Your task to perform on an android device: remove spam from my inbox in the gmail app Image 0: 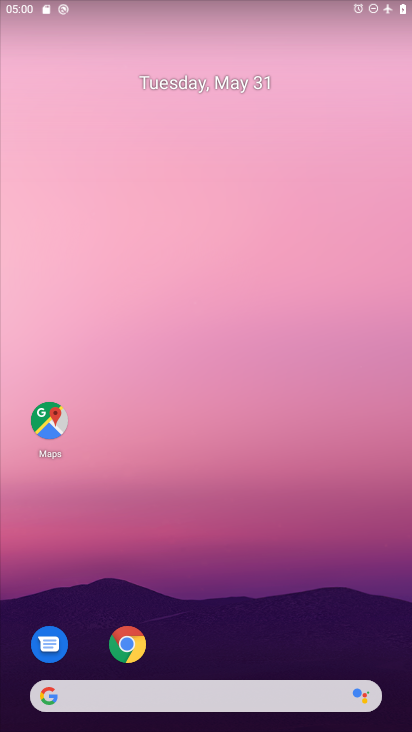
Step 0: drag from (295, 595) to (285, 66)
Your task to perform on an android device: remove spam from my inbox in the gmail app Image 1: 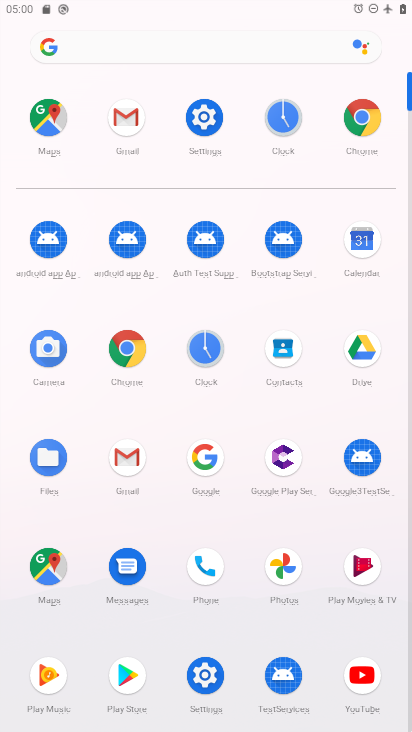
Step 1: click (122, 117)
Your task to perform on an android device: remove spam from my inbox in the gmail app Image 2: 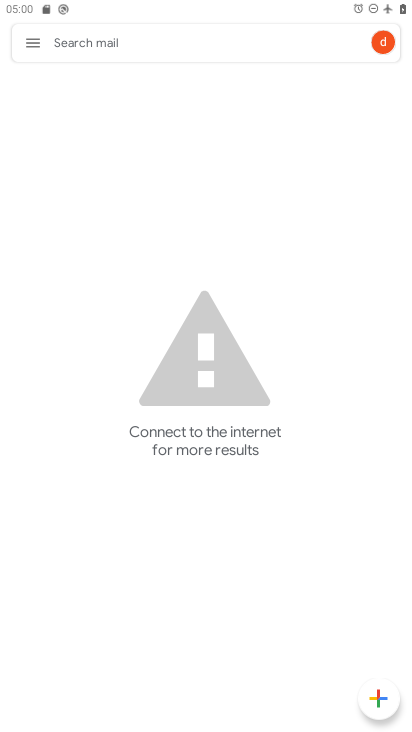
Step 2: click (29, 42)
Your task to perform on an android device: remove spam from my inbox in the gmail app Image 3: 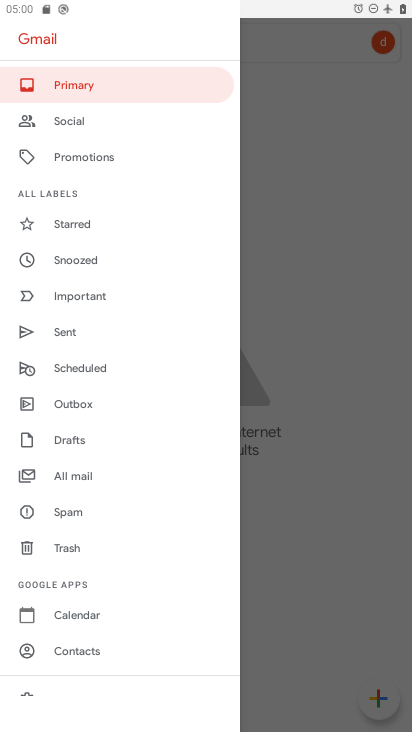
Step 3: click (72, 511)
Your task to perform on an android device: remove spam from my inbox in the gmail app Image 4: 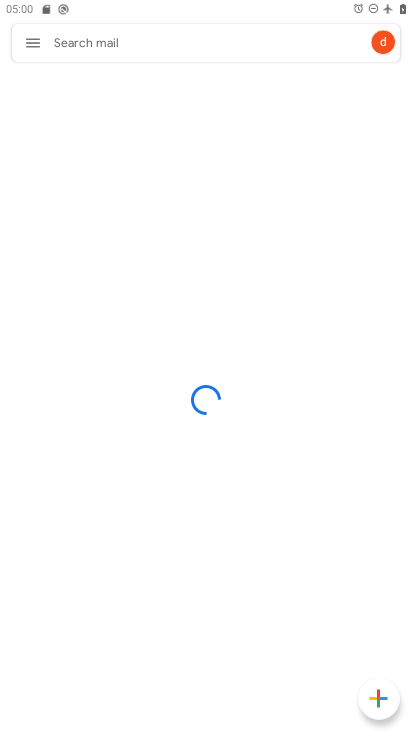
Step 4: click (36, 50)
Your task to perform on an android device: remove spam from my inbox in the gmail app Image 5: 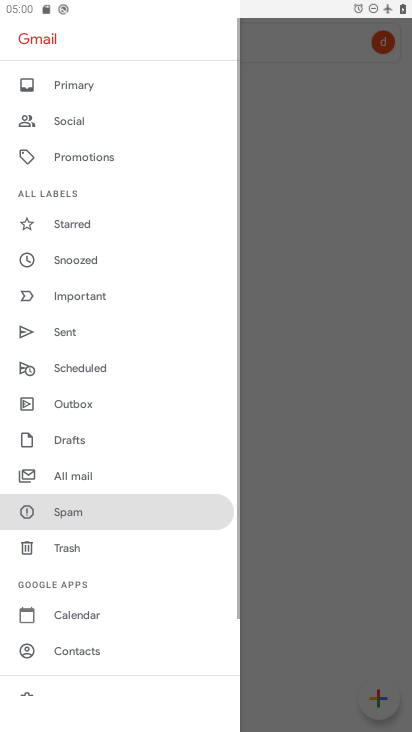
Step 5: drag from (76, 94) to (79, 420)
Your task to perform on an android device: remove spam from my inbox in the gmail app Image 6: 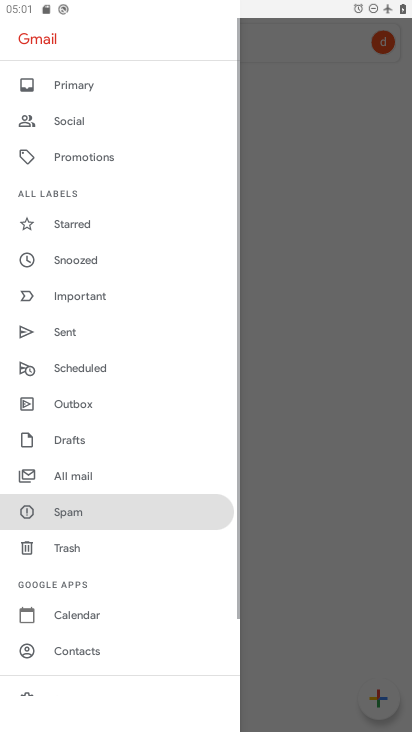
Step 6: click (95, 90)
Your task to perform on an android device: remove spam from my inbox in the gmail app Image 7: 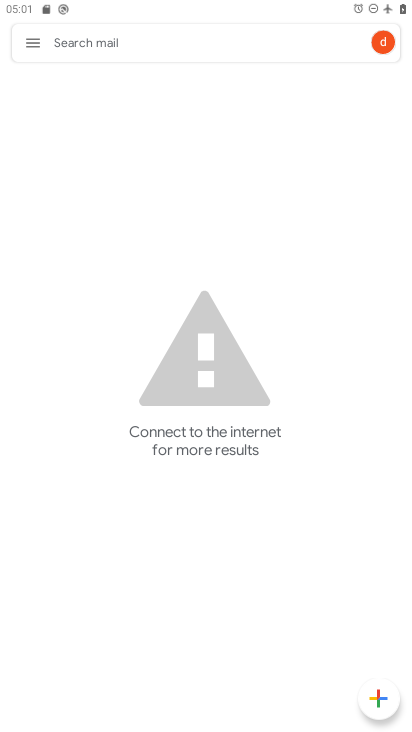
Step 7: task complete